Your task to perform on an android device: delete browsing data in the chrome app Image 0: 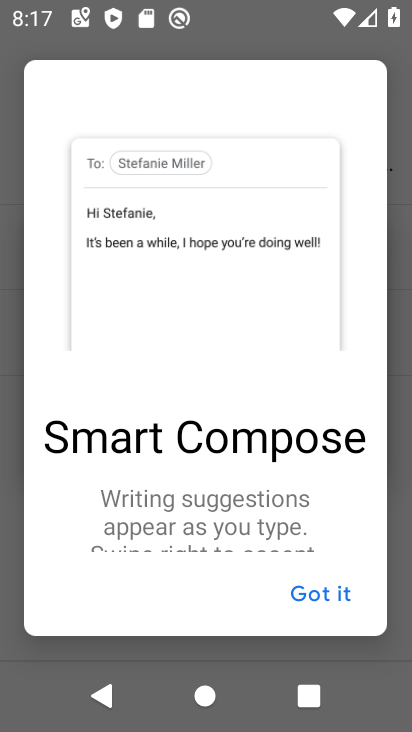
Step 0: press home button
Your task to perform on an android device: delete browsing data in the chrome app Image 1: 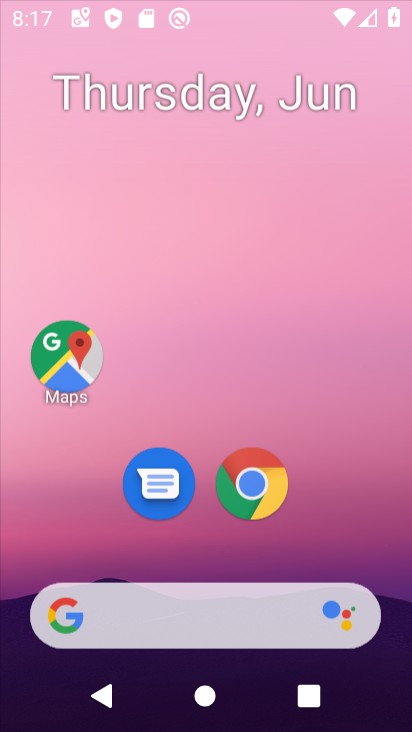
Step 1: drag from (200, 566) to (206, 13)
Your task to perform on an android device: delete browsing data in the chrome app Image 2: 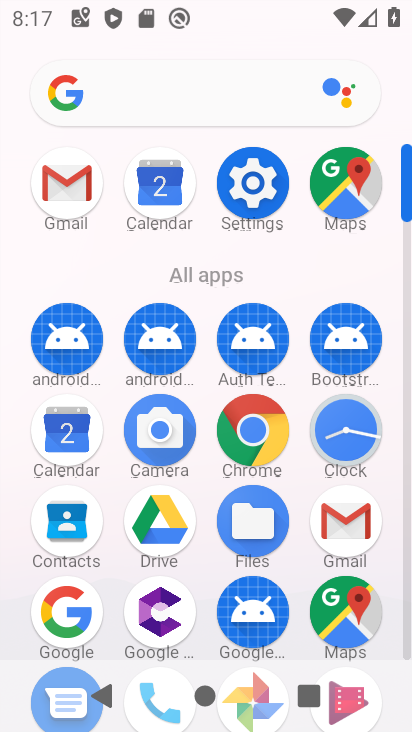
Step 2: click (248, 435)
Your task to perform on an android device: delete browsing data in the chrome app Image 3: 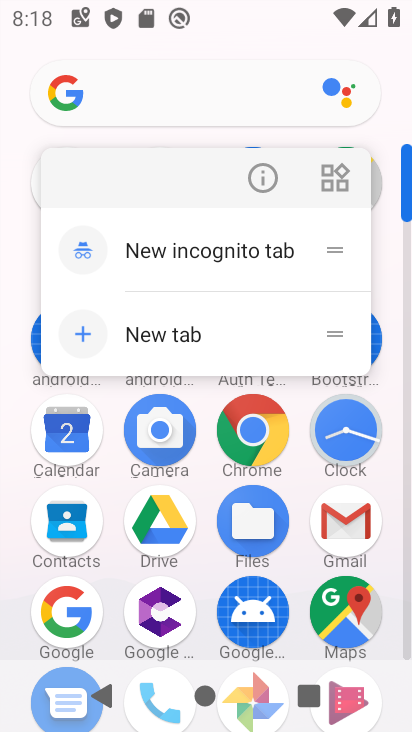
Step 3: click (259, 168)
Your task to perform on an android device: delete browsing data in the chrome app Image 4: 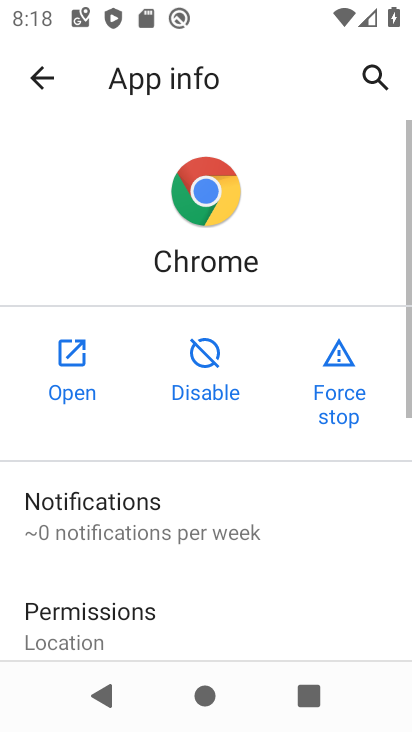
Step 4: click (71, 370)
Your task to perform on an android device: delete browsing data in the chrome app Image 5: 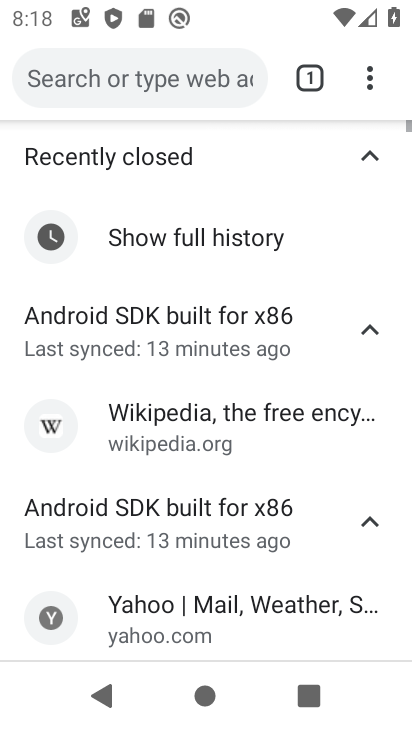
Step 5: drag from (172, 379) to (201, 243)
Your task to perform on an android device: delete browsing data in the chrome app Image 6: 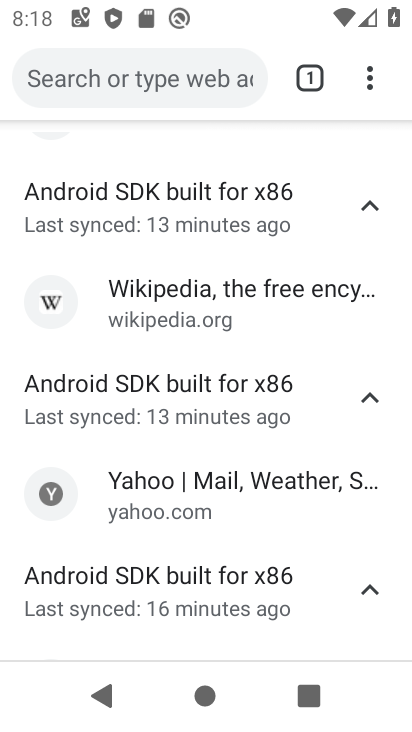
Step 6: drag from (380, 79) to (152, 534)
Your task to perform on an android device: delete browsing data in the chrome app Image 7: 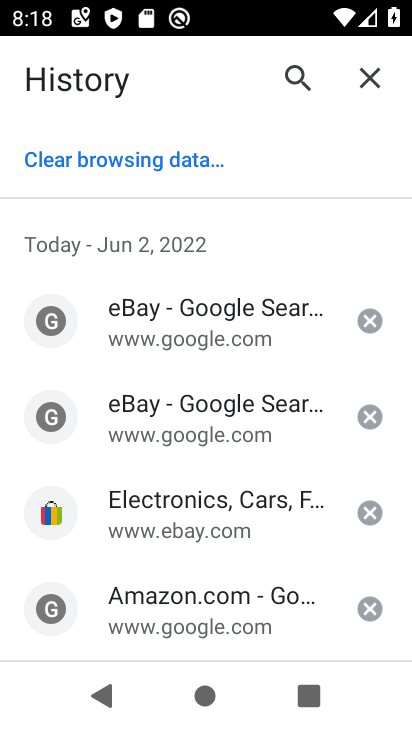
Step 7: drag from (177, 574) to (178, 153)
Your task to perform on an android device: delete browsing data in the chrome app Image 8: 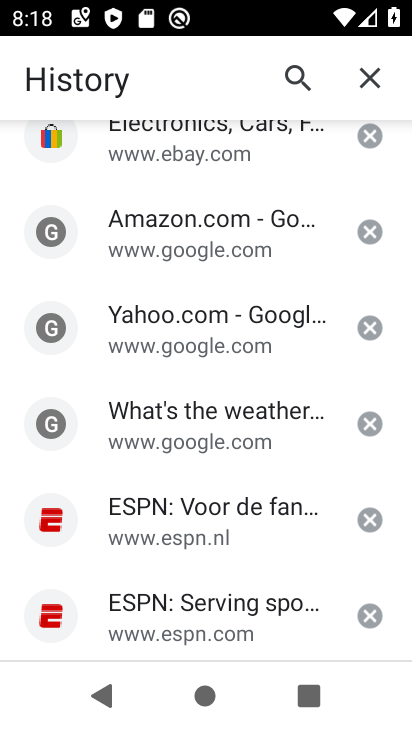
Step 8: drag from (214, 573) to (184, 217)
Your task to perform on an android device: delete browsing data in the chrome app Image 9: 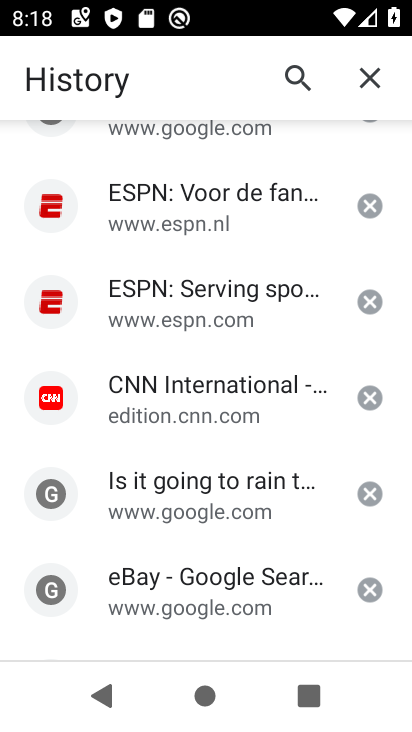
Step 9: drag from (167, 257) to (306, 715)
Your task to perform on an android device: delete browsing data in the chrome app Image 10: 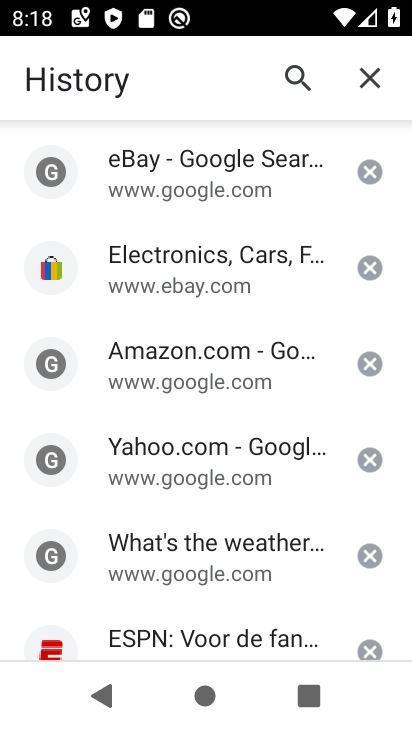
Step 10: drag from (126, 234) to (300, 729)
Your task to perform on an android device: delete browsing data in the chrome app Image 11: 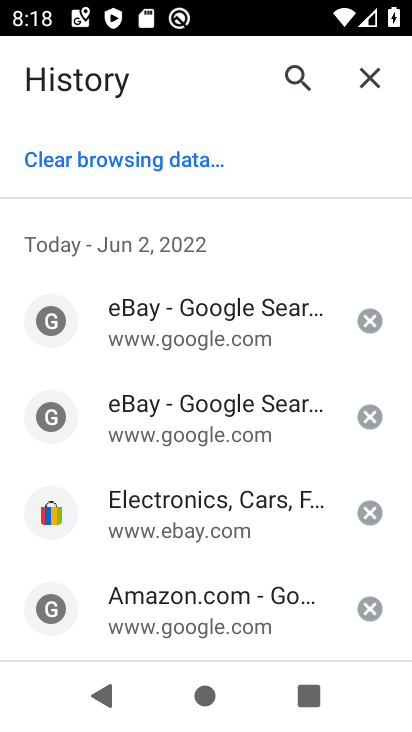
Step 11: click (87, 170)
Your task to perform on an android device: delete browsing data in the chrome app Image 12: 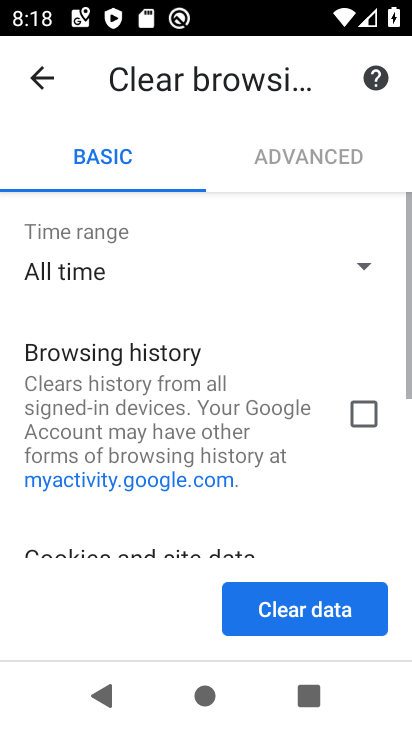
Step 12: drag from (242, 468) to (245, 198)
Your task to perform on an android device: delete browsing data in the chrome app Image 13: 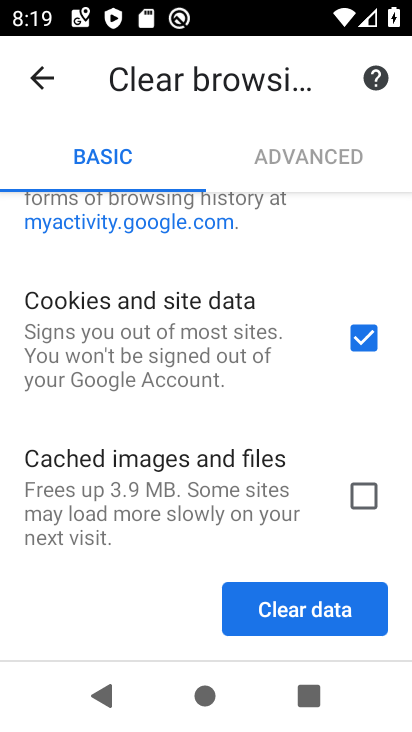
Step 13: drag from (250, 279) to (272, 727)
Your task to perform on an android device: delete browsing data in the chrome app Image 14: 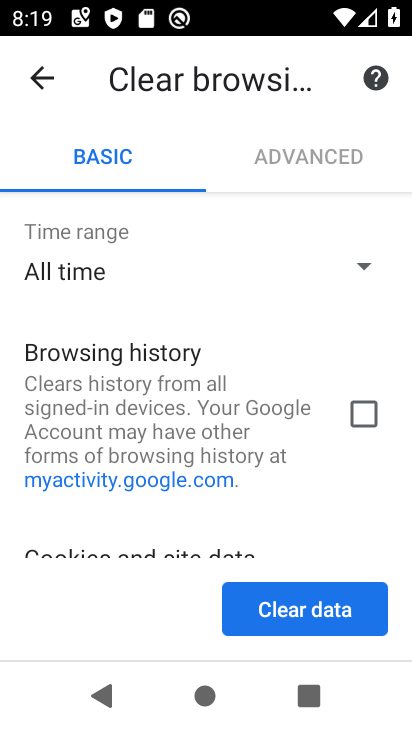
Step 14: click (358, 417)
Your task to perform on an android device: delete browsing data in the chrome app Image 15: 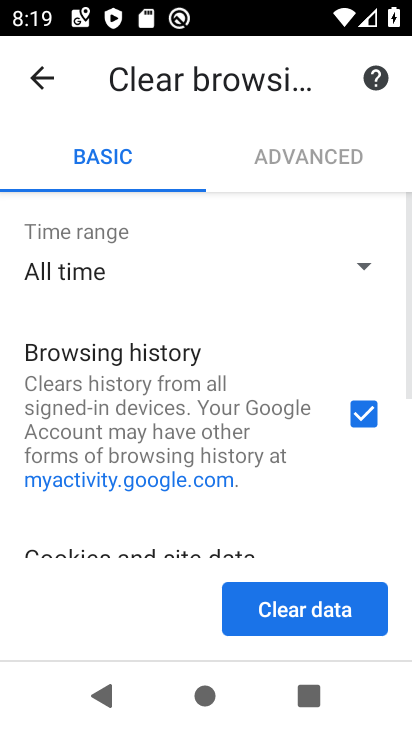
Step 15: click (282, 602)
Your task to perform on an android device: delete browsing data in the chrome app Image 16: 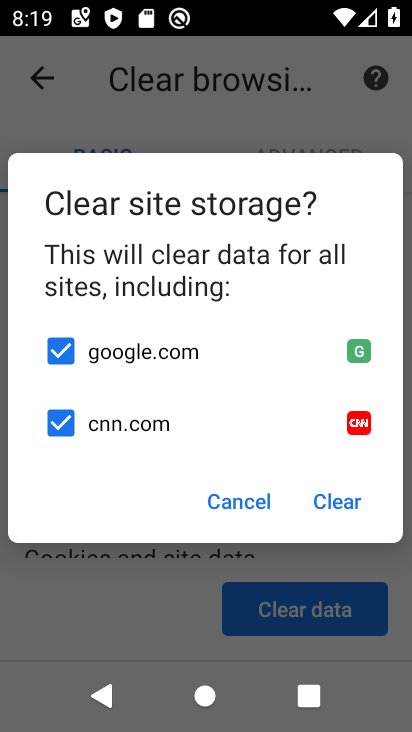
Step 16: click (331, 525)
Your task to perform on an android device: delete browsing data in the chrome app Image 17: 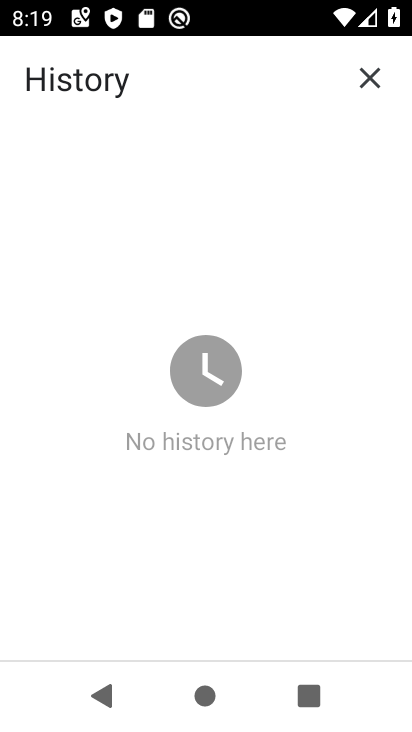
Step 17: task complete